Your task to perform on an android device: turn off javascript in the chrome app Image 0: 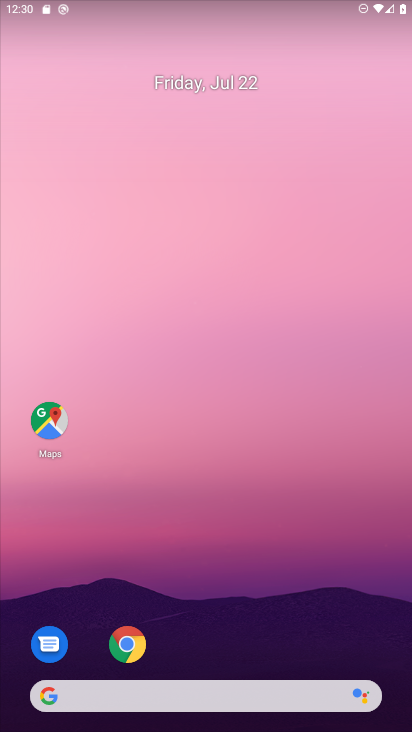
Step 0: click (127, 653)
Your task to perform on an android device: turn off javascript in the chrome app Image 1: 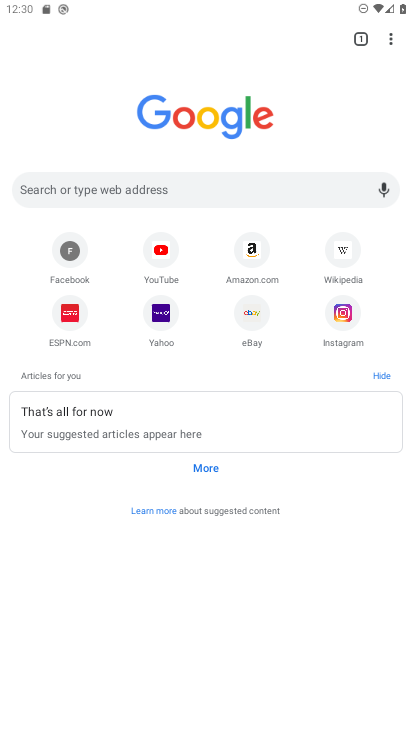
Step 1: click (398, 41)
Your task to perform on an android device: turn off javascript in the chrome app Image 2: 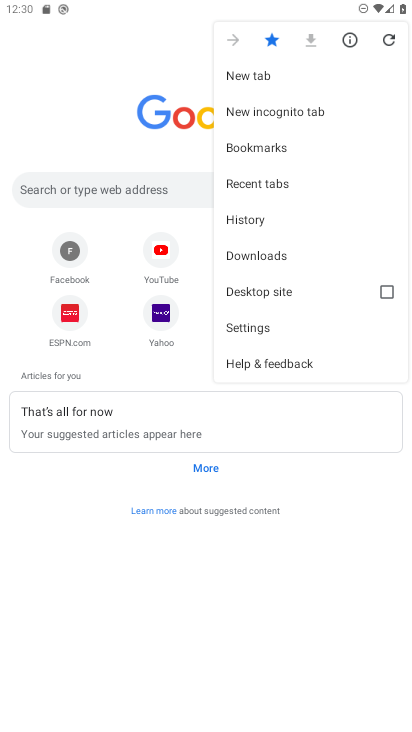
Step 2: click (282, 327)
Your task to perform on an android device: turn off javascript in the chrome app Image 3: 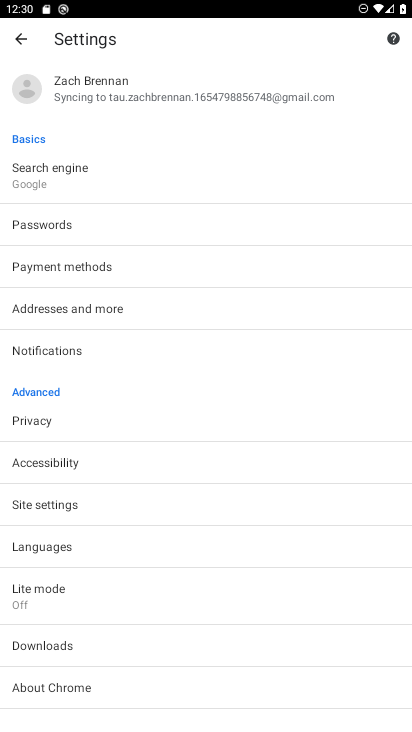
Step 3: click (101, 503)
Your task to perform on an android device: turn off javascript in the chrome app Image 4: 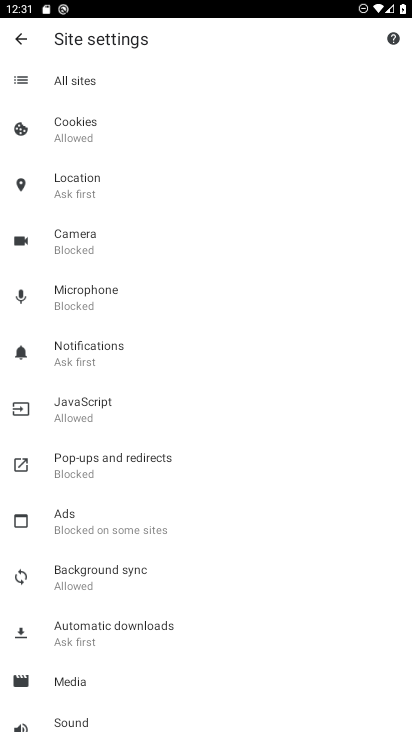
Step 4: click (120, 425)
Your task to perform on an android device: turn off javascript in the chrome app Image 5: 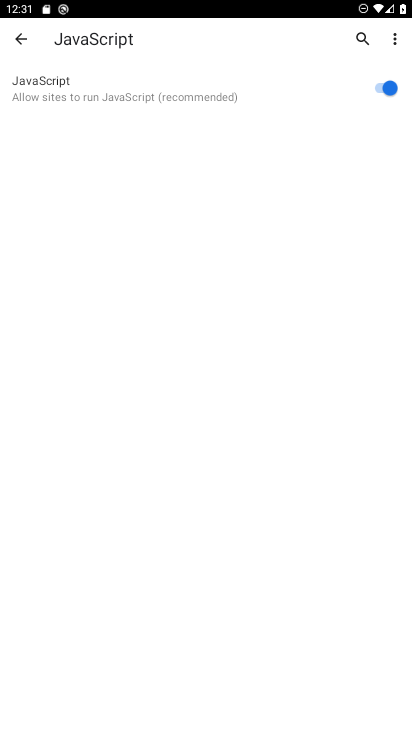
Step 5: click (386, 96)
Your task to perform on an android device: turn off javascript in the chrome app Image 6: 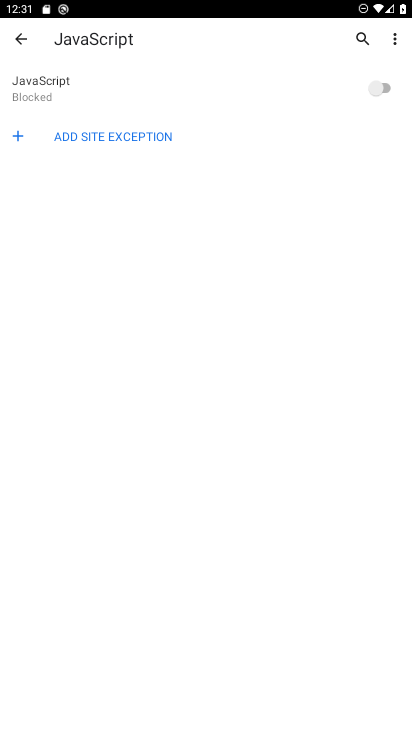
Step 6: task complete